Your task to perform on an android device: Go to calendar. Show me events next week Image 0: 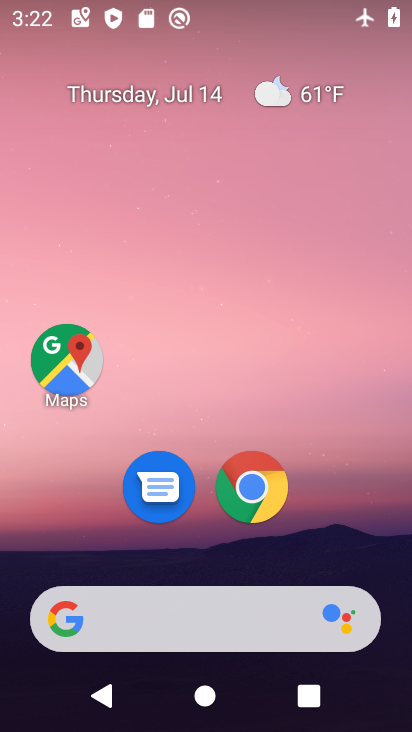
Step 0: drag from (202, 541) to (205, 2)
Your task to perform on an android device: Go to calendar. Show me events next week Image 1: 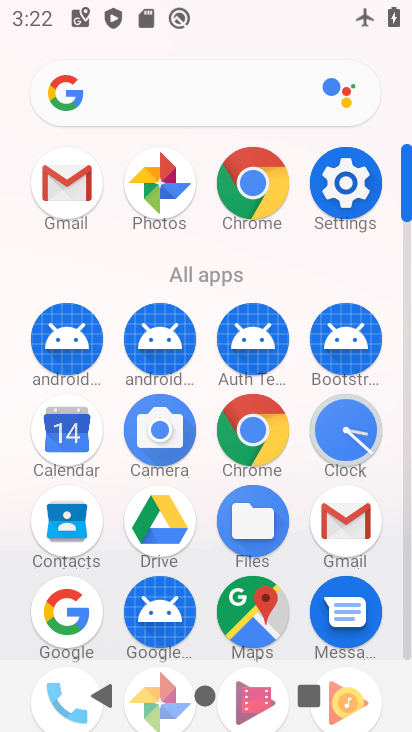
Step 1: click (88, 459)
Your task to perform on an android device: Go to calendar. Show me events next week Image 2: 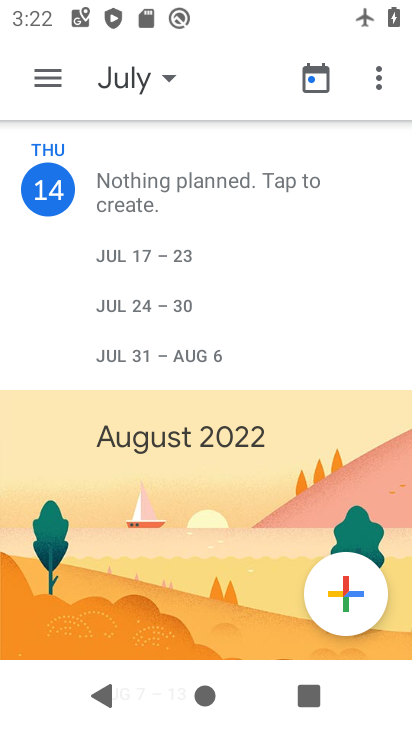
Step 2: task complete